Your task to perform on an android device: open the mobile data screen to see how much data has been used Image 0: 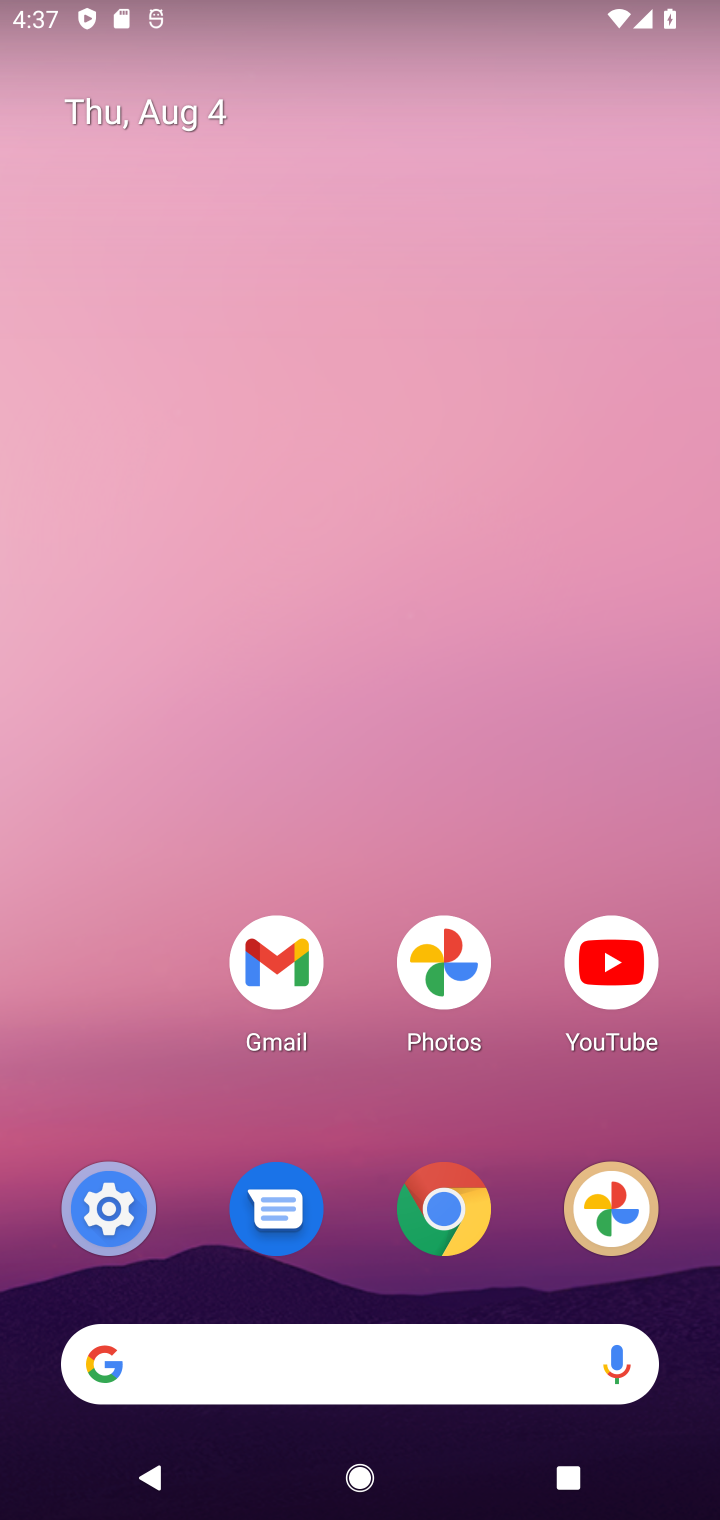
Step 0: click (94, 1227)
Your task to perform on an android device: open the mobile data screen to see how much data has been used Image 1: 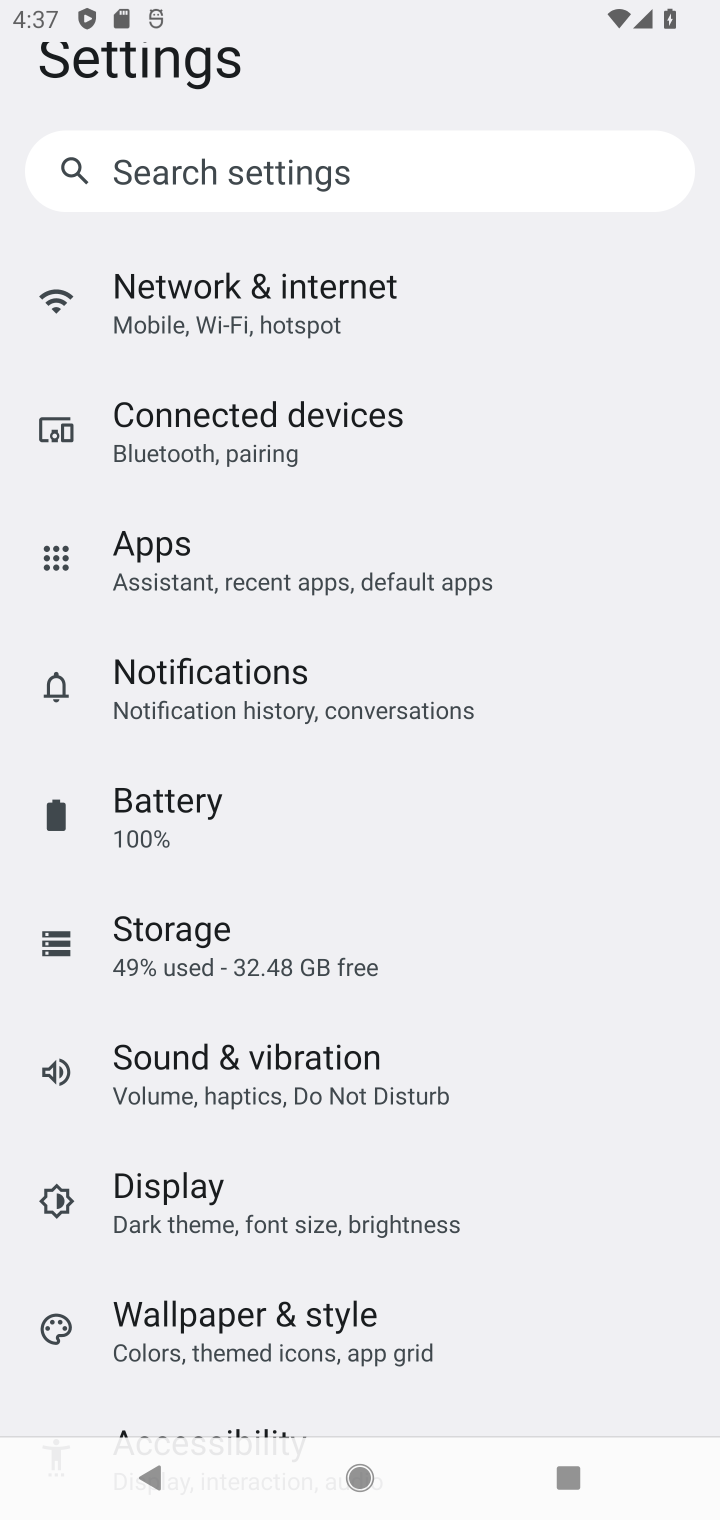
Step 1: click (207, 325)
Your task to perform on an android device: open the mobile data screen to see how much data has been used Image 2: 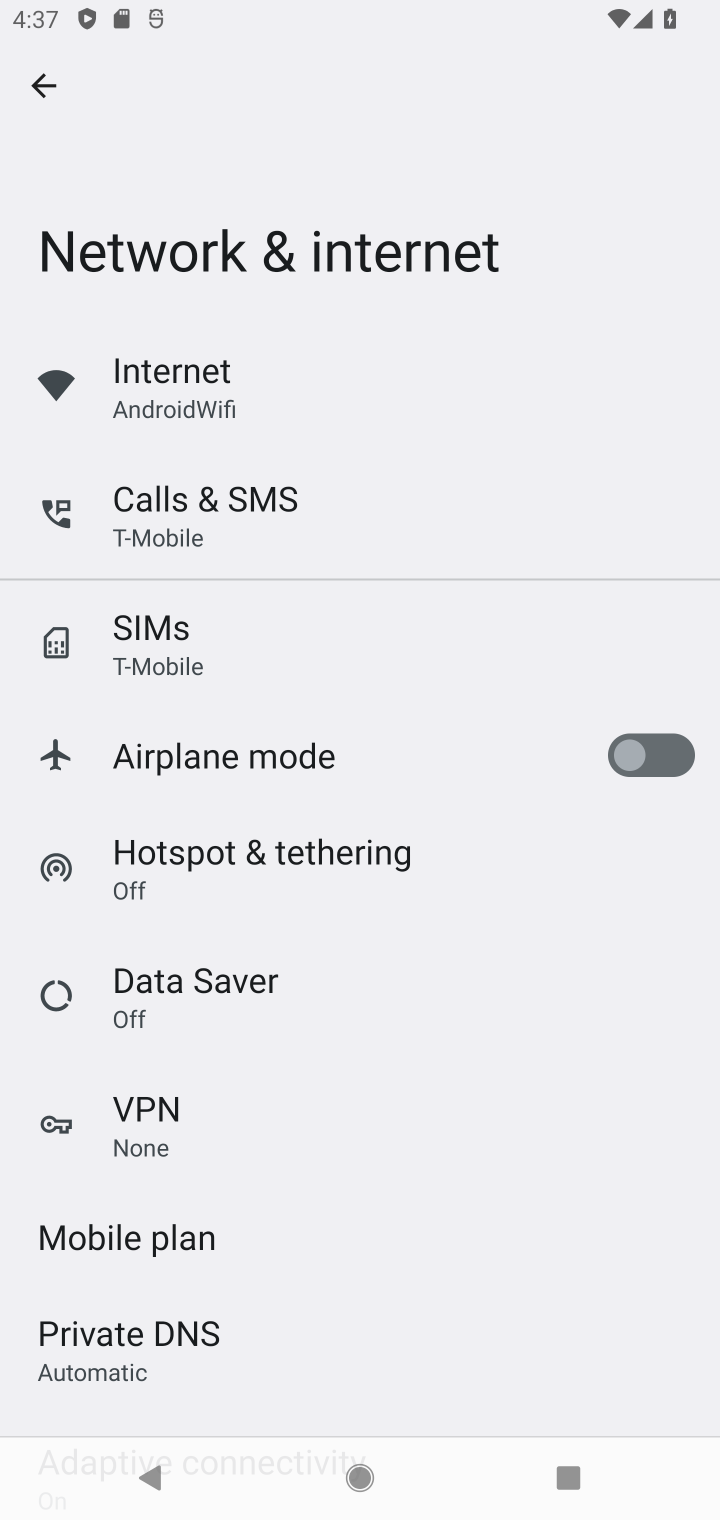
Step 2: click (195, 1253)
Your task to perform on an android device: open the mobile data screen to see how much data has been used Image 3: 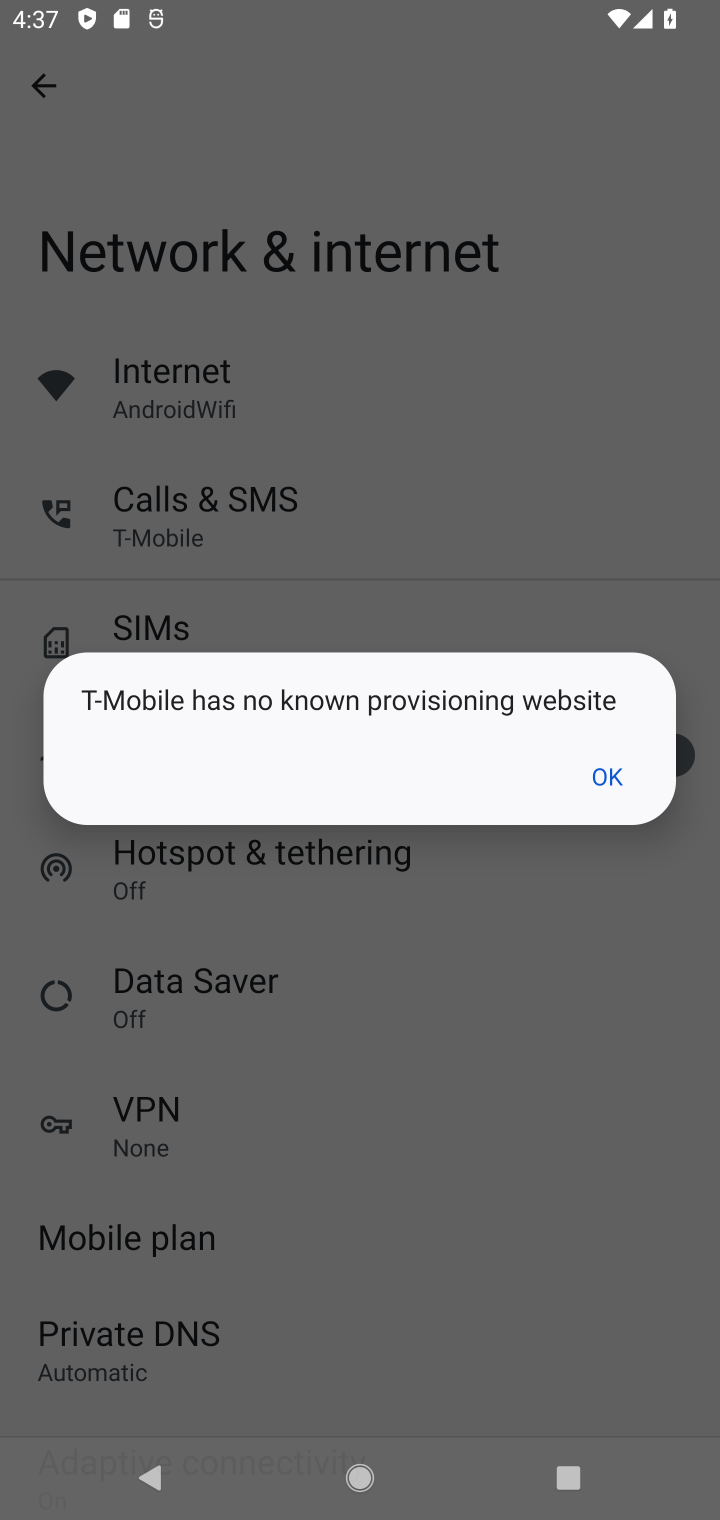
Step 3: click (612, 796)
Your task to perform on an android device: open the mobile data screen to see how much data has been used Image 4: 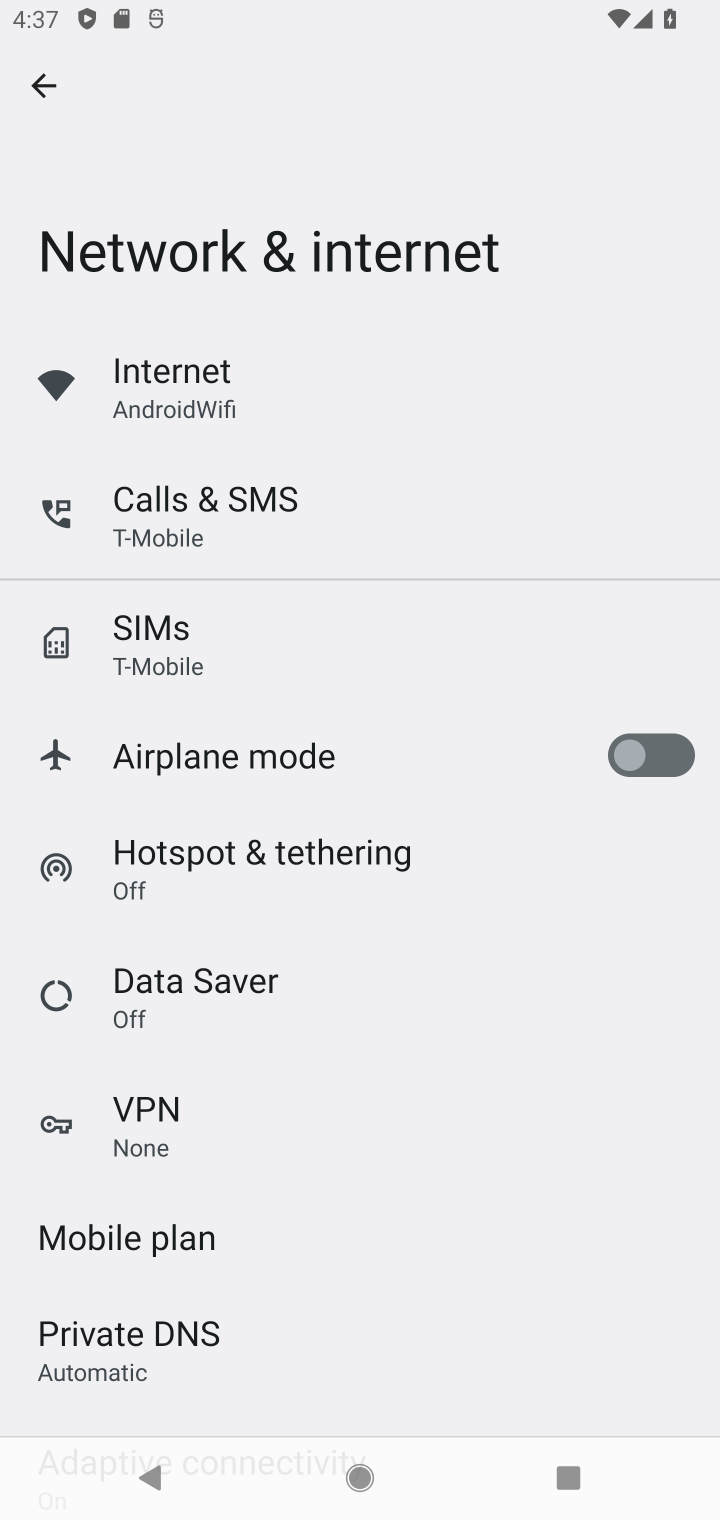
Step 4: click (189, 407)
Your task to perform on an android device: open the mobile data screen to see how much data has been used Image 5: 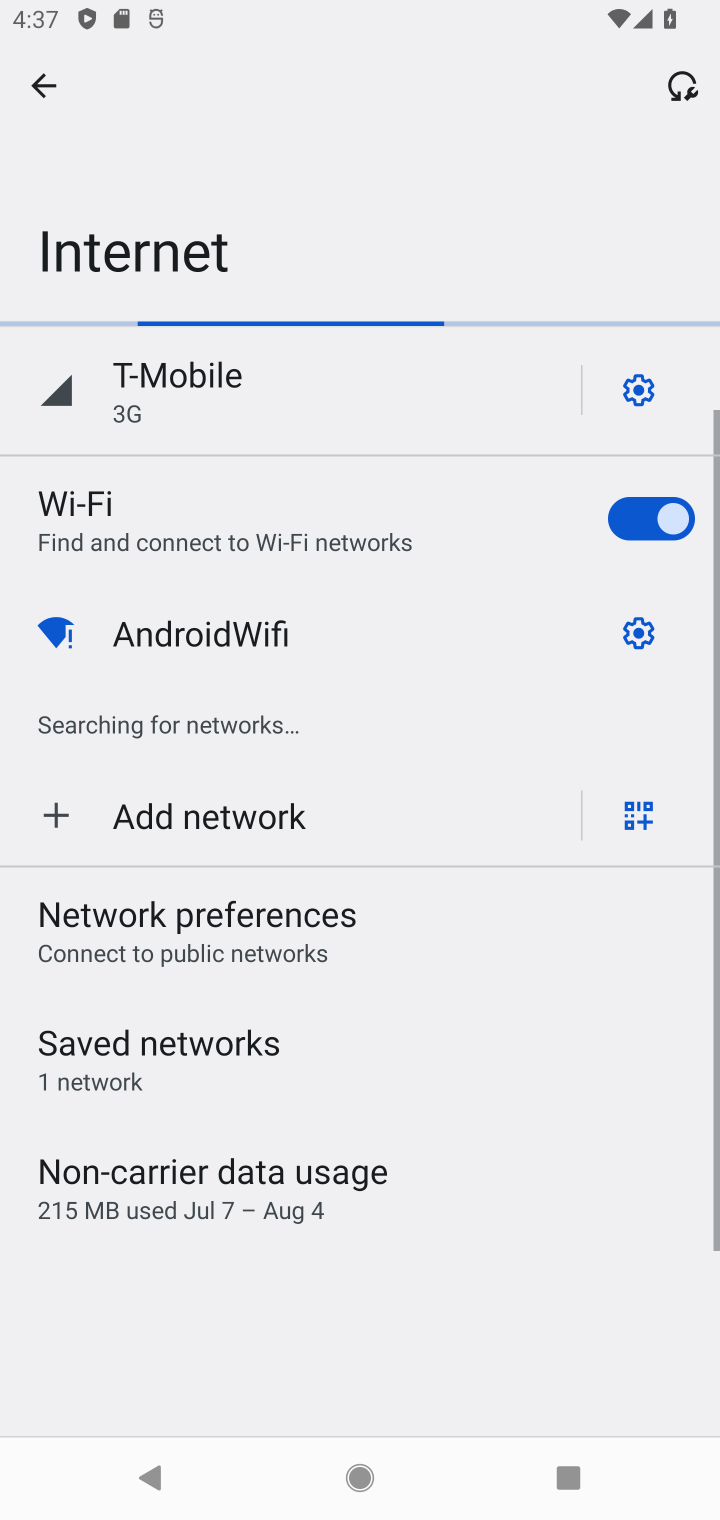
Step 5: click (215, 1191)
Your task to perform on an android device: open the mobile data screen to see how much data has been used Image 6: 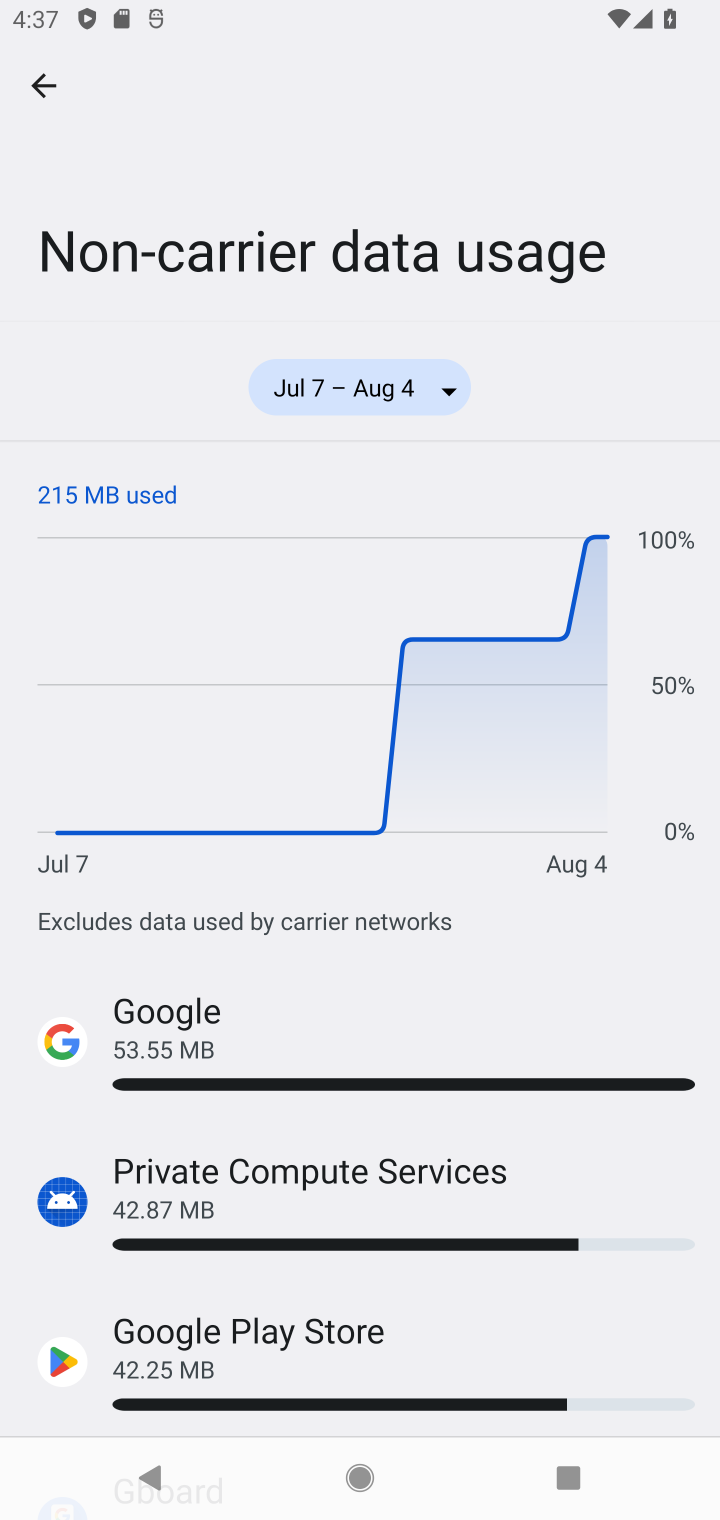
Step 6: drag from (364, 1199) to (379, 574)
Your task to perform on an android device: open the mobile data screen to see how much data has been used Image 7: 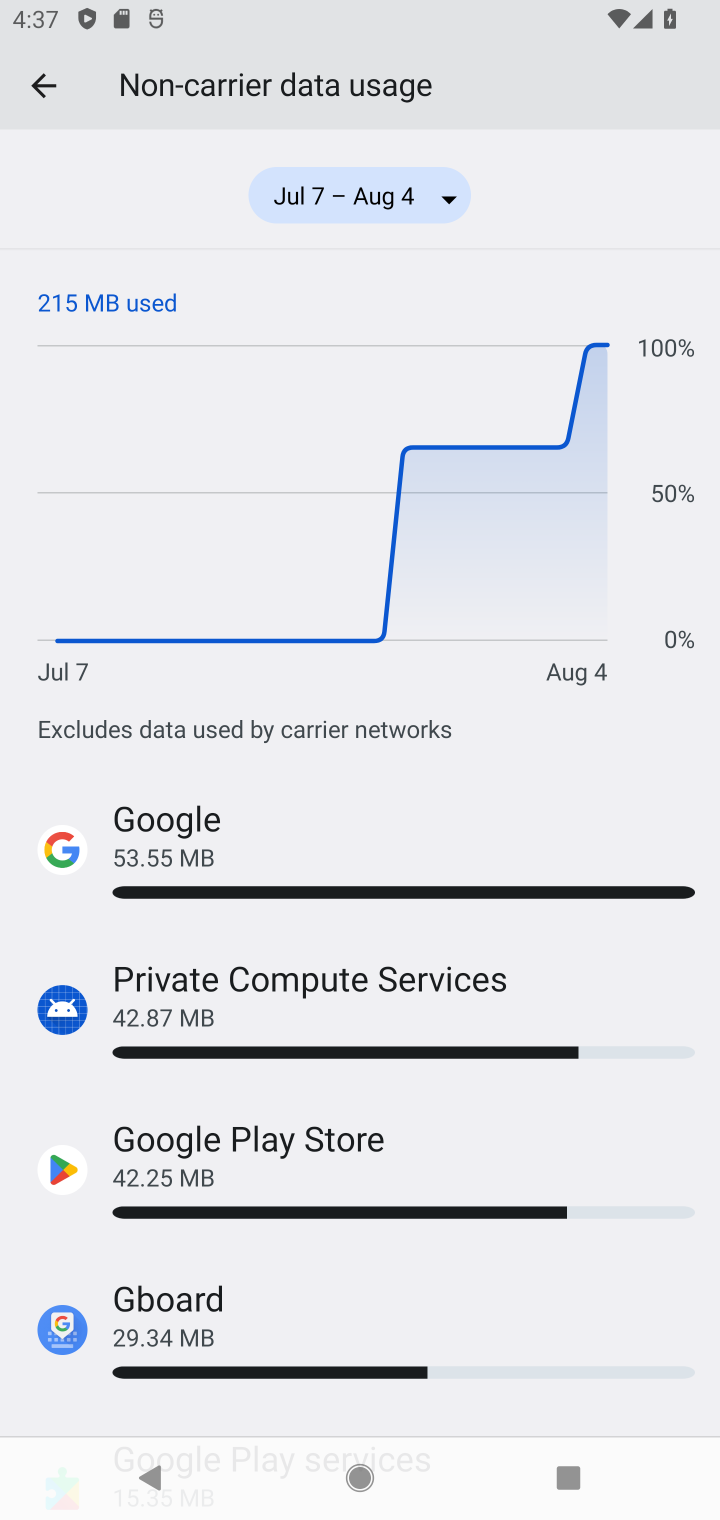
Step 7: click (606, 336)
Your task to perform on an android device: open the mobile data screen to see how much data has been used Image 8: 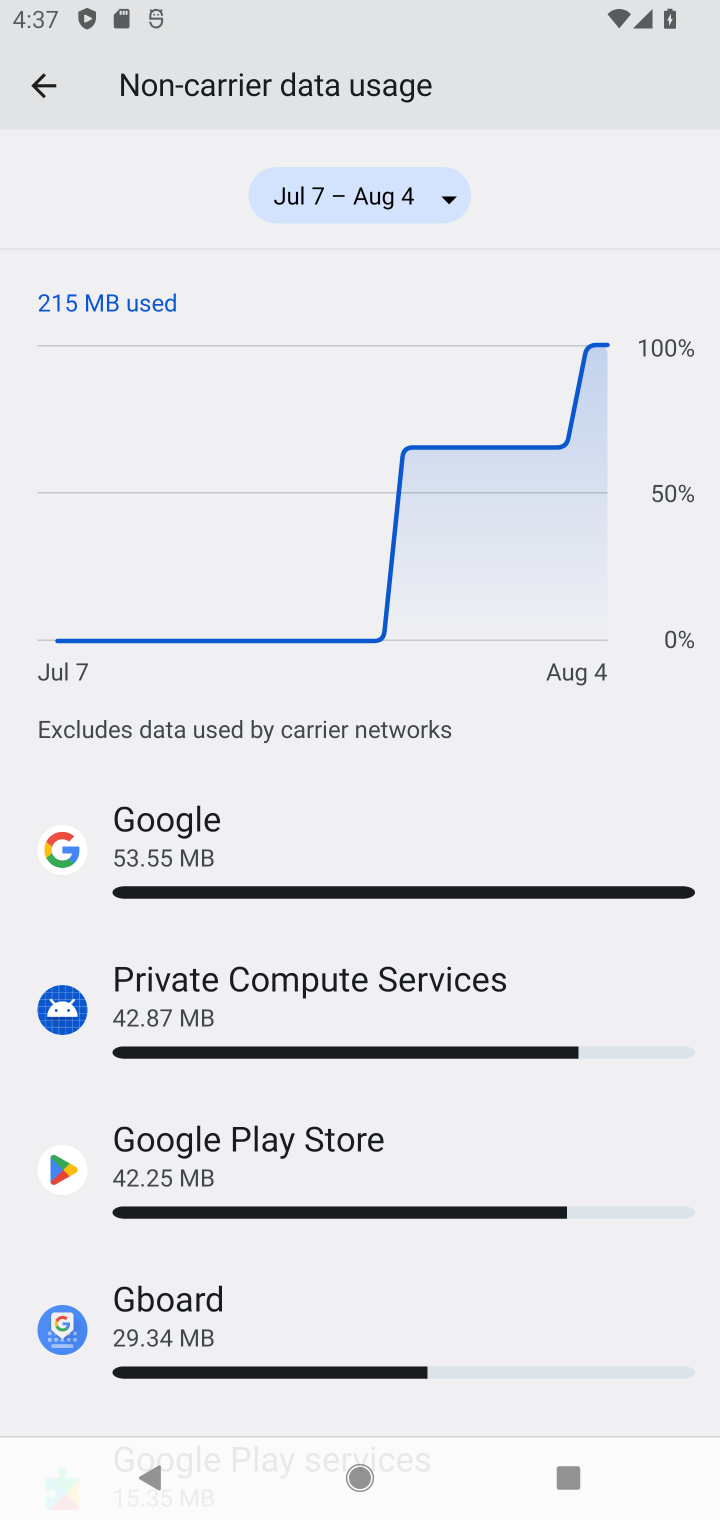
Step 8: task complete